Your task to perform on an android device: Go to Reddit.com Image 0: 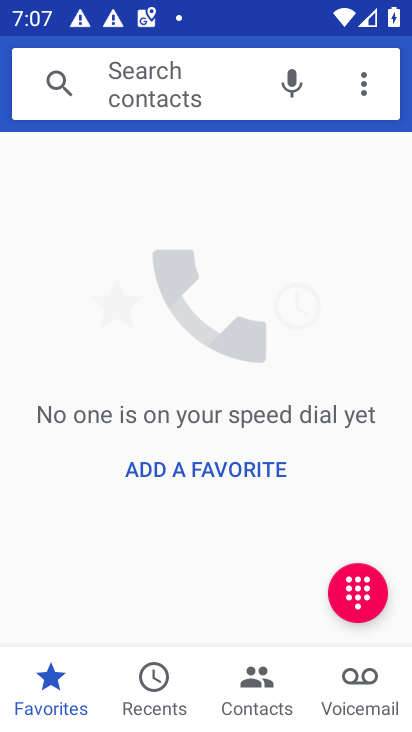
Step 0: press home button
Your task to perform on an android device: Go to Reddit.com Image 1: 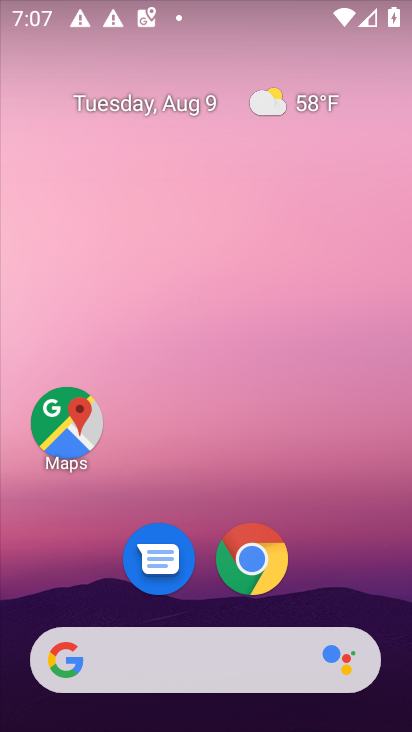
Step 1: click (259, 551)
Your task to perform on an android device: Go to Reddit.com Image 2: 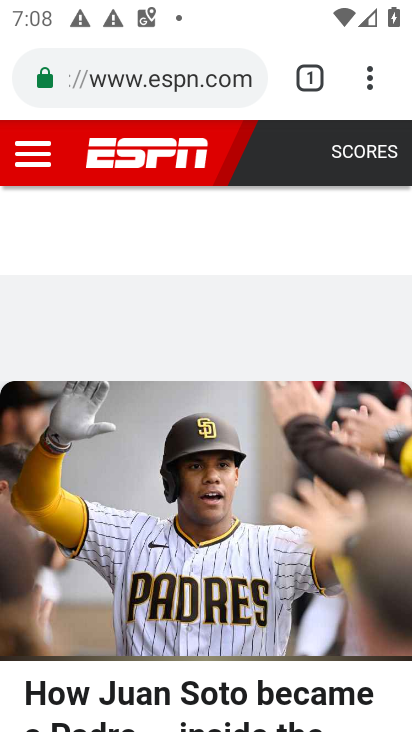
Step 2: click (137, 91)
Your task to perform on an android device: Go to Reddit.com Image 3: 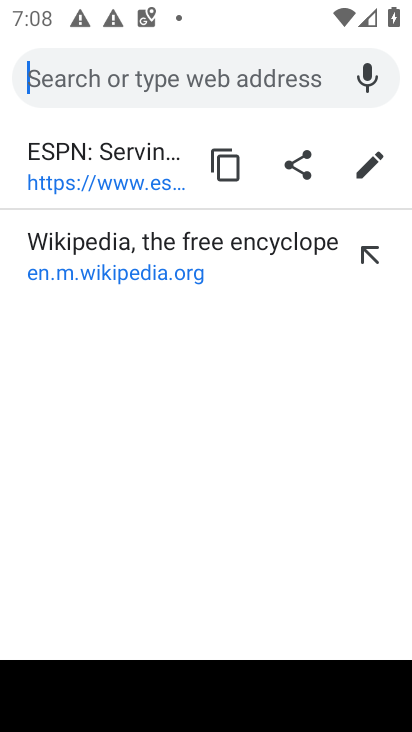
Step 3: type "www.reddit.com"
Your task to perform on an android device: Go to Reddit.com Image 4: 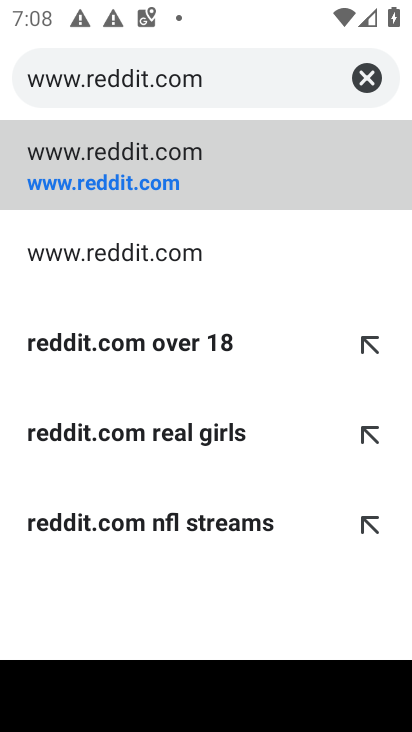
Step 4: click (151, 171)
Your task to perform on an android device: Go to Reddit.com Image 5: 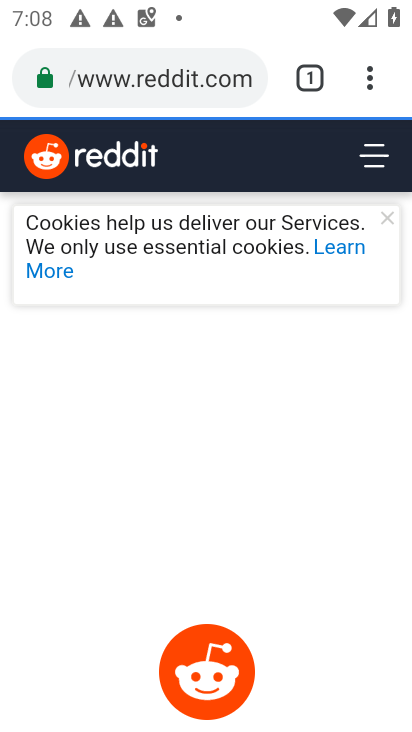
Step 5: task complete